Your task to perform on an android device: toggle show notifications on the lock screen Image 0: 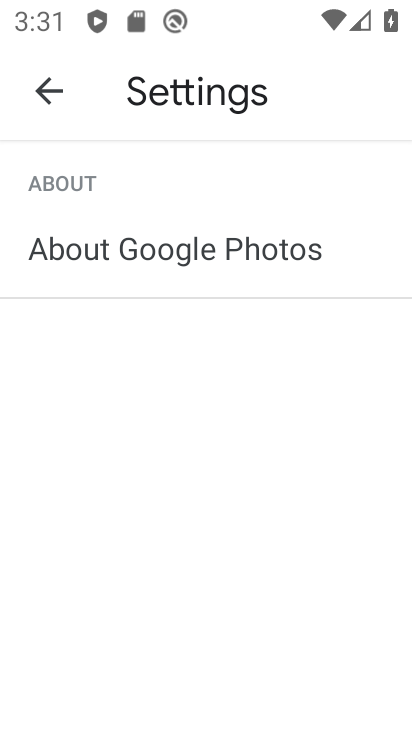
Step 0: press back button
Your task to perform on an android device: toggle show notifications on the lock screen Image 1: 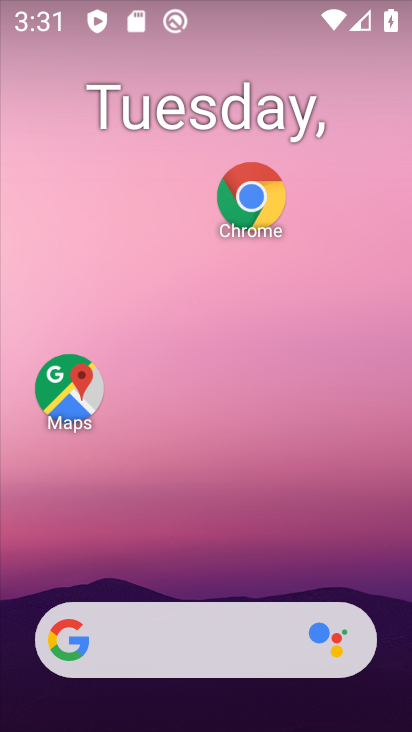
Step 1: drag from (174, 597) to (174, 274)
Your task to perform on an android device: toggle show notifications on the lock screen Image 2: 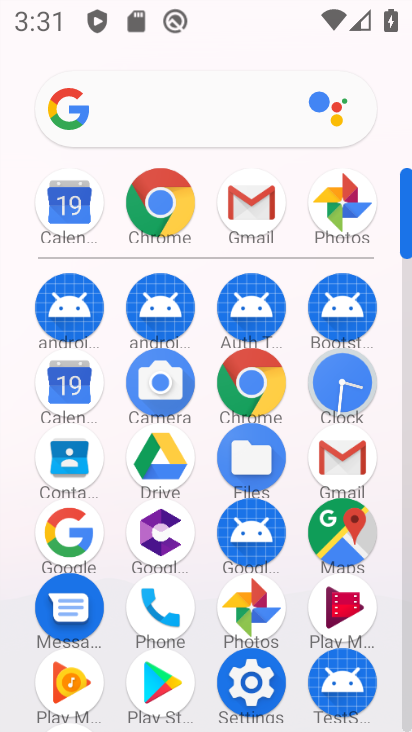
Step 2: click (250, 675)
Your task to perform on an android device: toggle show notifications on the lock screen Image 3: 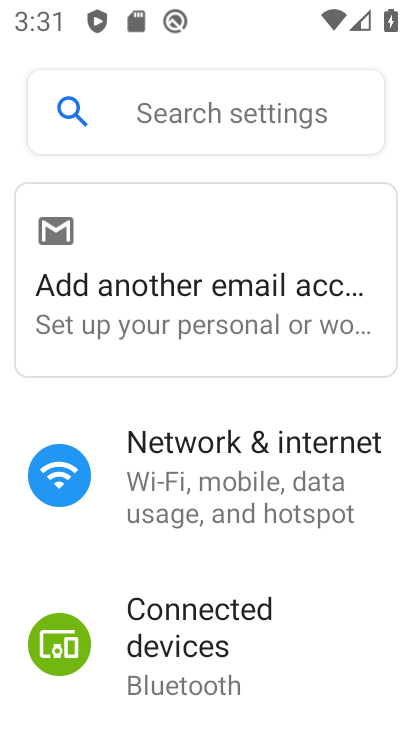
Step 3: drag from (250, 678) to (264, 280)
Your task to perform on an android device: toggle show notifications on the lock screen Image 4: 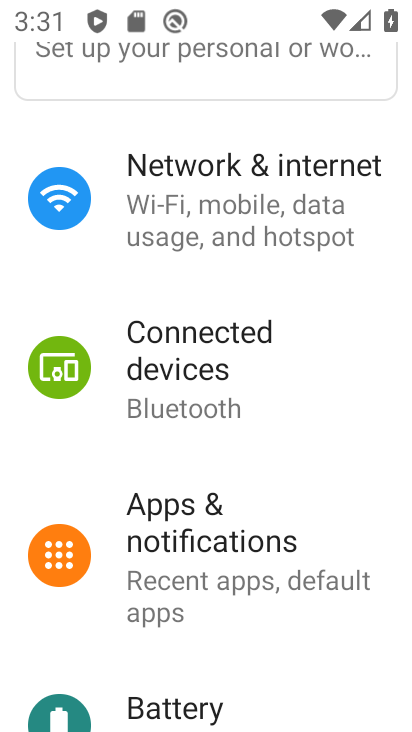
Step 4: drag from (245, 716) to (255, 343)
Your task to perform on an android device: toggle show notifications on the lock screen Image 5: 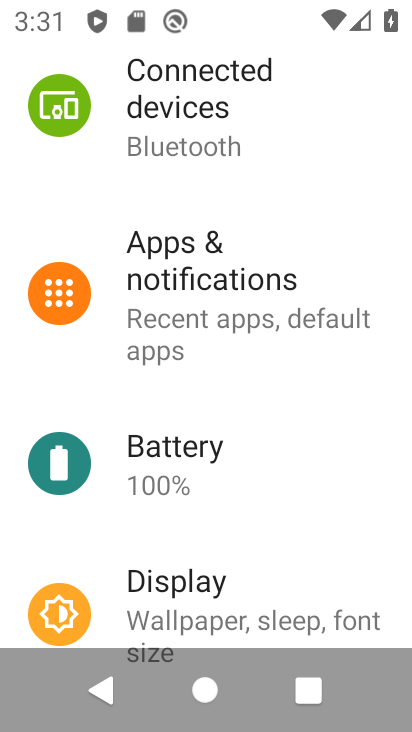
Step 5: drag from (268, 633) to (269, 315)
Your task to perform on an android device: toggle show notifications on the lock screen Image 6: 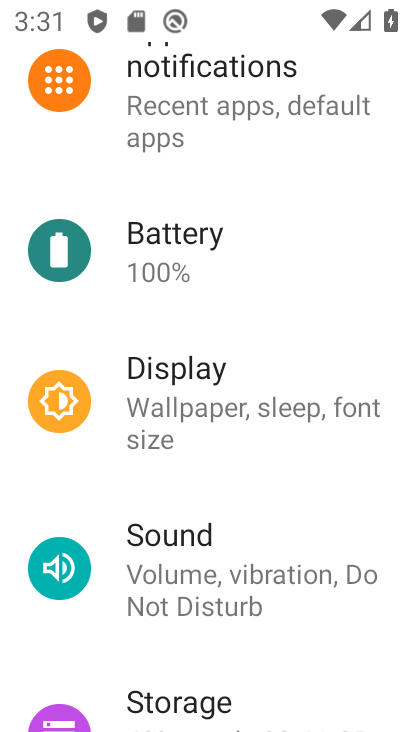
Step 6: drag from (262, 652) to (228, 331)
Your task to perform on an android device: toggle show notifications on the lock screen Image 7: 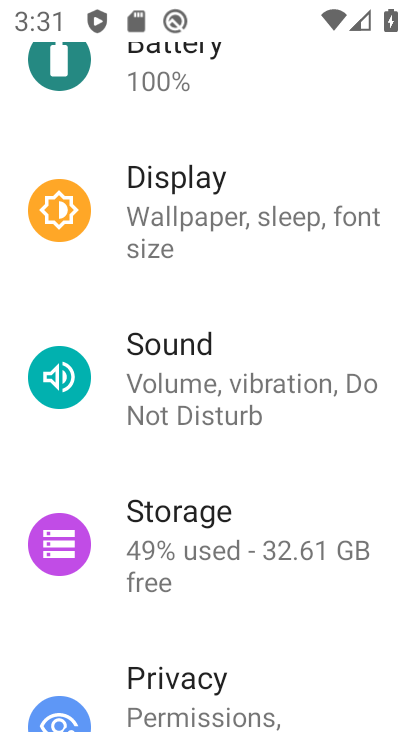
Step 7: click (237, 716)
Your task to perform on an android device: toggle show notifications on the lock screen Image 8: 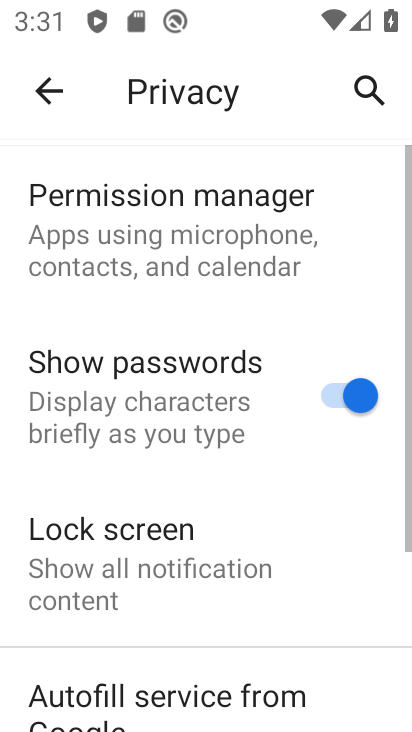
Step 8: click (143, 548)
Your task to perform on an android device: toggle show notifications on the lock screen Image 9: 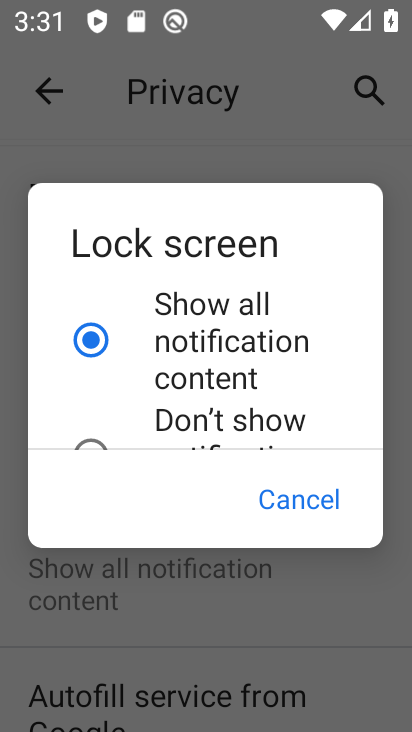
Step 9: click (94, 441)
Your task to perform on an android device: toggle show notifications on the lock screen Image 10: 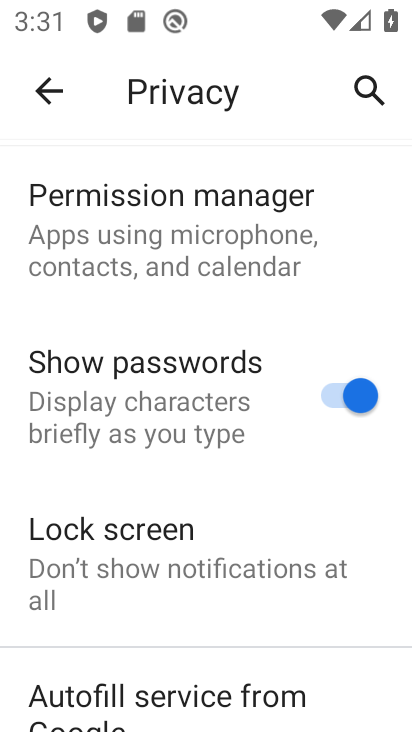
Step 10: task complete